Your task to perform on an android device: set the timer Image 0: 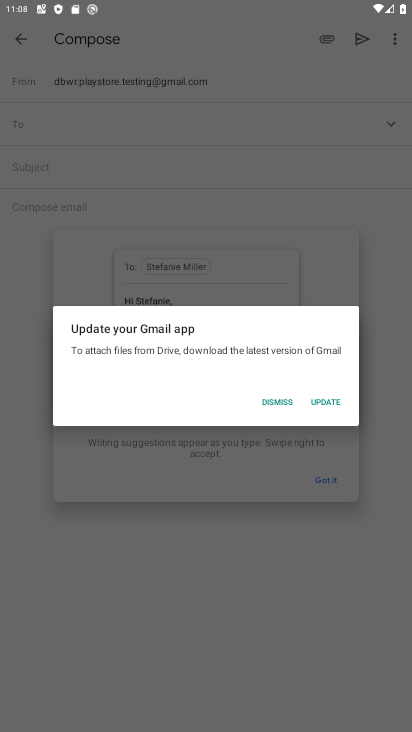
Step 0: press home button
Your task to perform on an android device: set the timer Image 1: 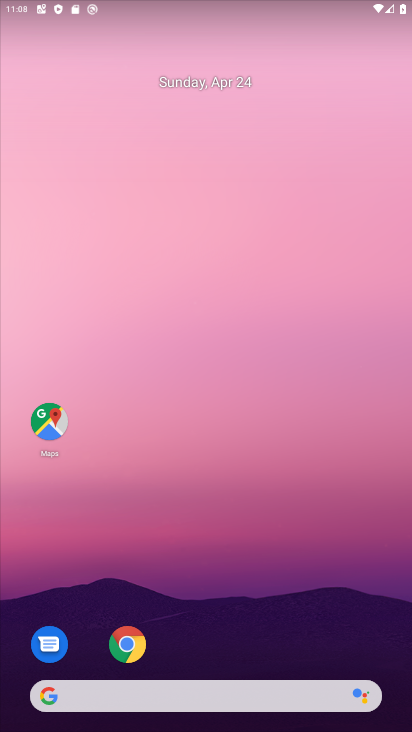
Step 1: drag from (324, 655) to (331, 47)
Your task to perform on an android device: set the timer Image 2: 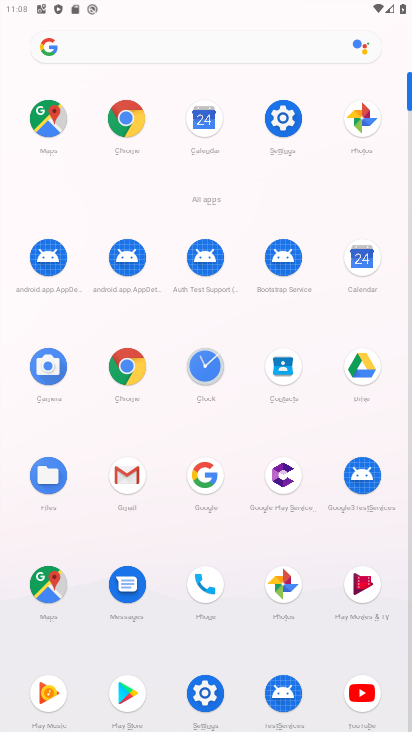
Step 2: click (201, 370)
Your task to perform on an android device: set the timer Image 3: 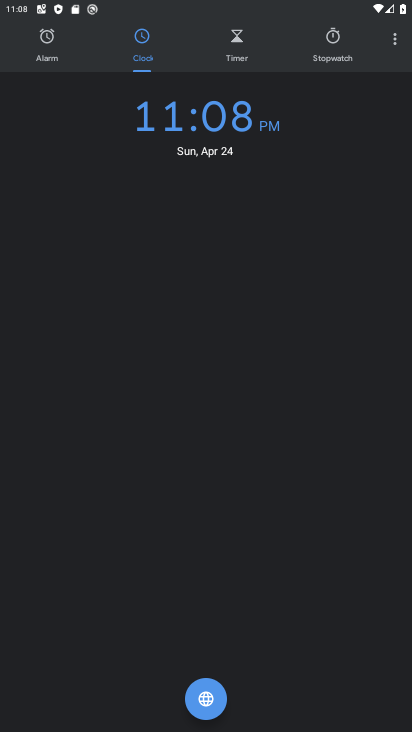
Step 3: click (231, 57)
Your task to perform on an android device: set the timer Image 4: 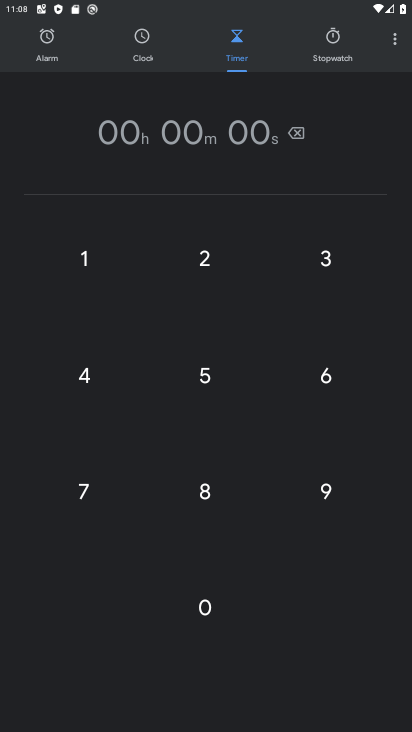
Step 4: click (206, 383)
Your task to perform on an android device: set the timer Image 5: 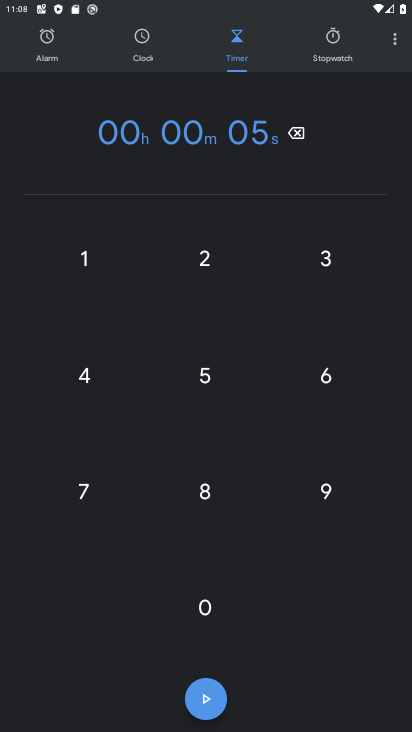
Step 5: click (215, 389)
Your task to perform on an android device: set the timer Image 6: 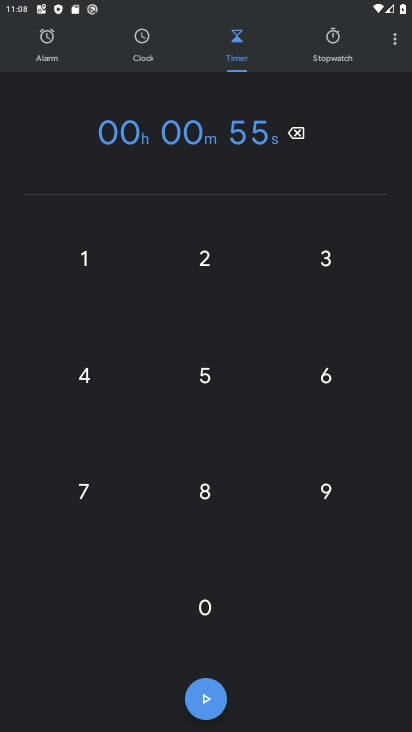
Step 6: click (206, 269)
Your task to perform on an android device: set the timer Image 7: 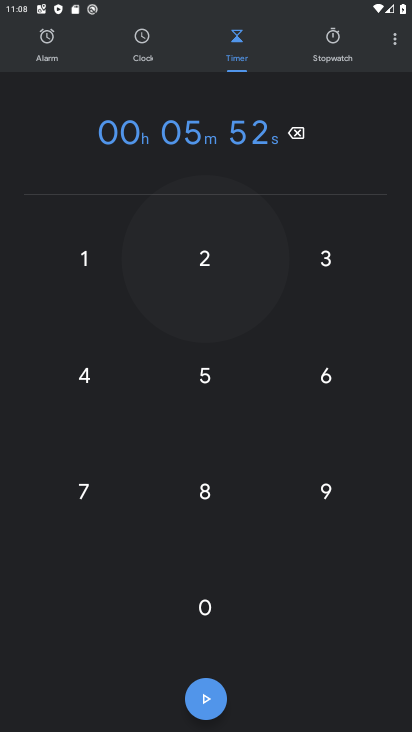
Step 7: click (203, 598)
Your task to perform on an android device: set the timer Image 8: 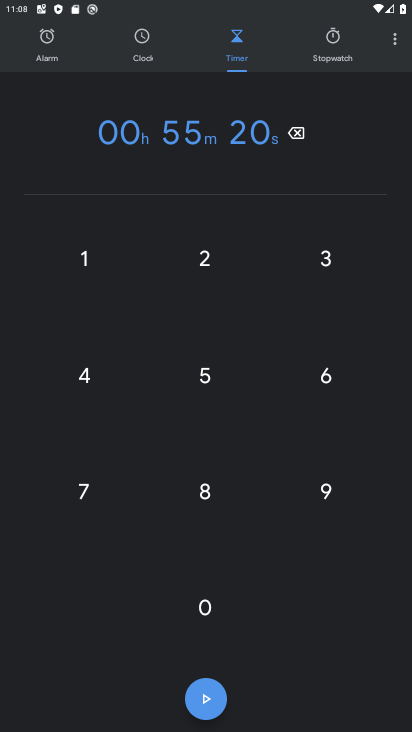
Step 8: click (204, 689)
Your task to perform on an android device: set the timer Image 9: 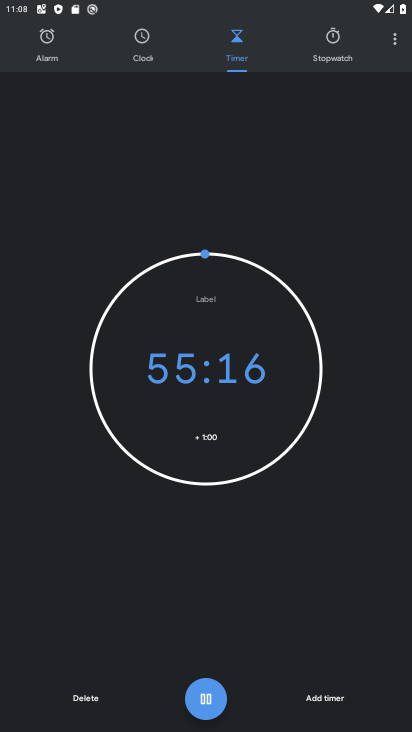
Step 9: task complete